Your task to perform on an android device: check the backup settings in the google photos Image 0: 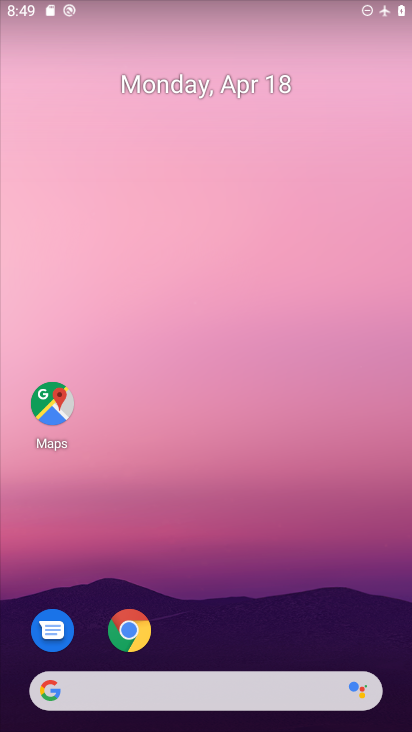
Step 0: drag from (228, 534) to (285, 236)
Your task to perform on an android device: check the backup settings in the google photos Image 1: 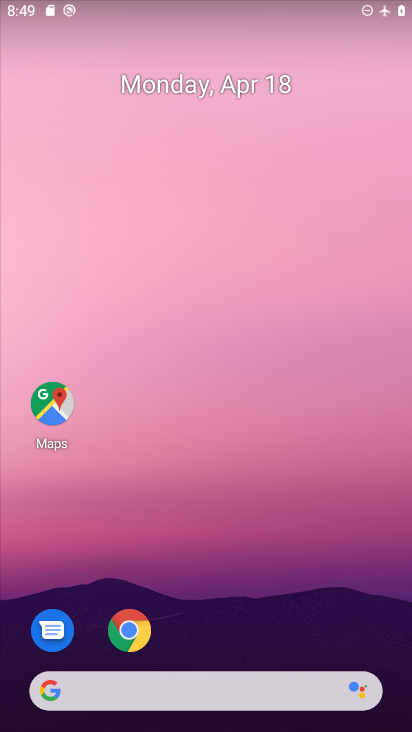
Step 1: drag from (222, 527) to (279, 120)
Your task to perform on an android device: check the backup settings in the google photos Image 2: 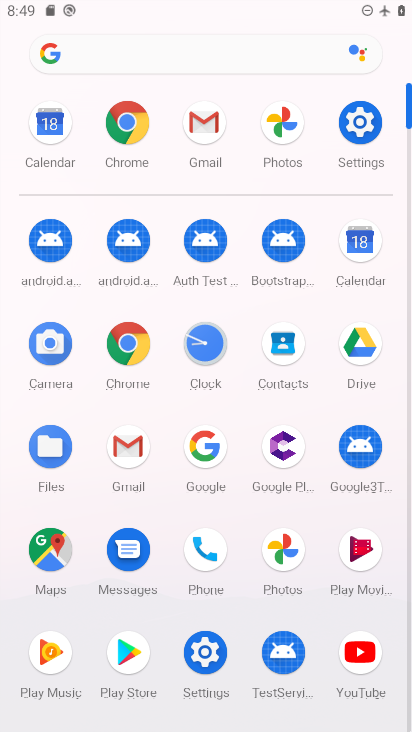
Step 2: click (281, 551)
Your task to perform on an android device: check the backup settings in the google photos Image 3: 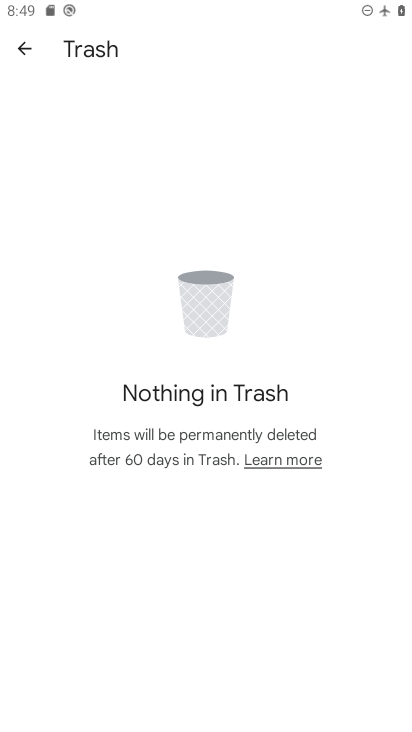
Step 3: click (29, 51)
Your task to perform on an android device: check the backup settings in the google photos Image 4: 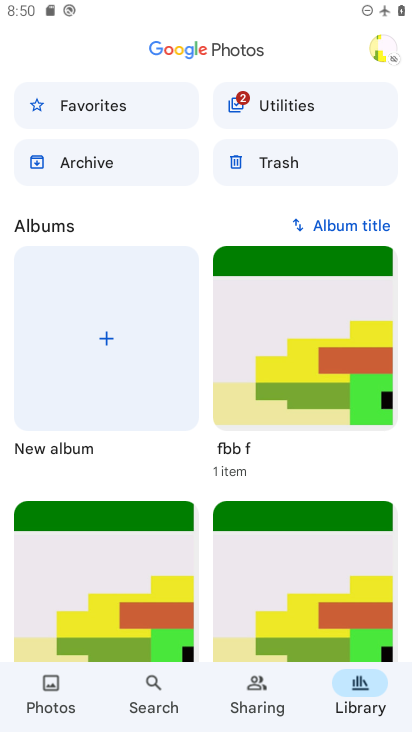
Step 4: click (387, 50)
Your task to perform on an android device: check the backup settings in the google photos Image 5: 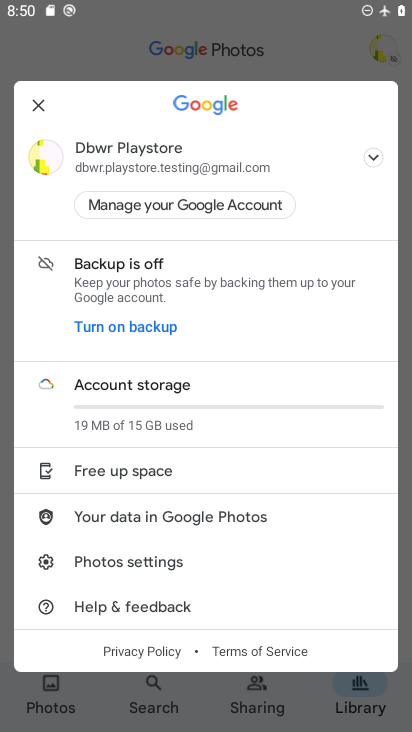
Step 5: drag from (162, 565) to (210, 272)
Your task to perform on an android device: check the backup settings in the google photos Image 6: 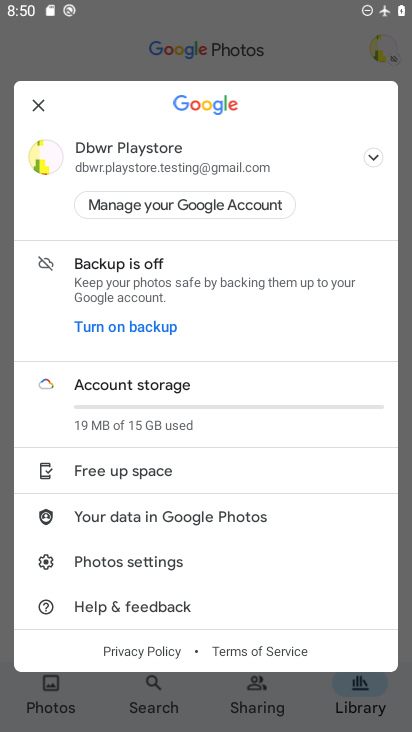
Step 6: click (144, 269)
Your task to perform on an android device: check the backup settings in the google photos Image 7: 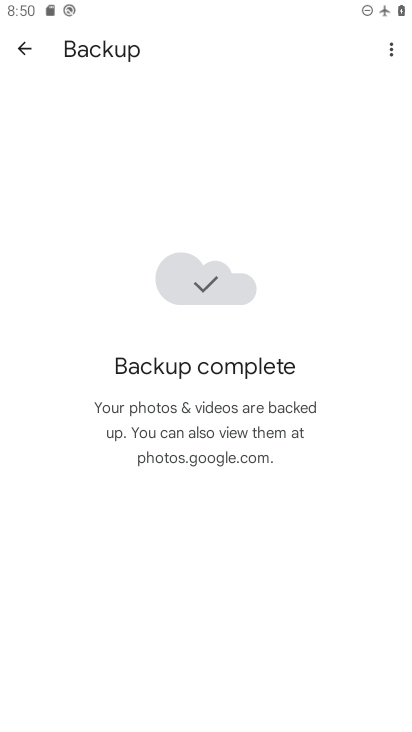
Step 7: task complete